Your task to perform on an android device: Set the phone to "Do not disturb". Image 0: 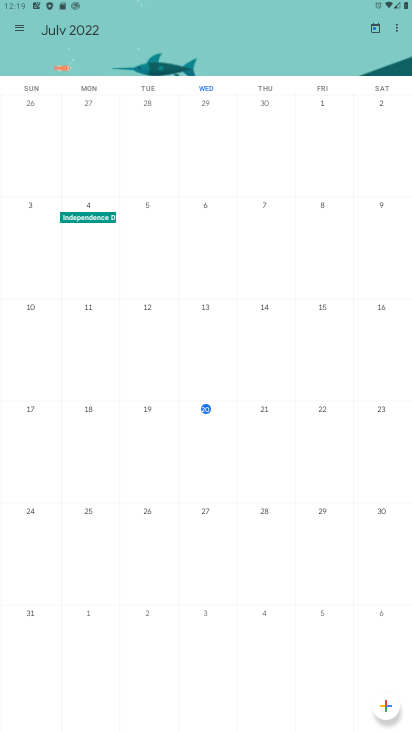
Step 0: press home button
Your task to perform on an android device: Set the phone to "Do not disturb". Image 1: 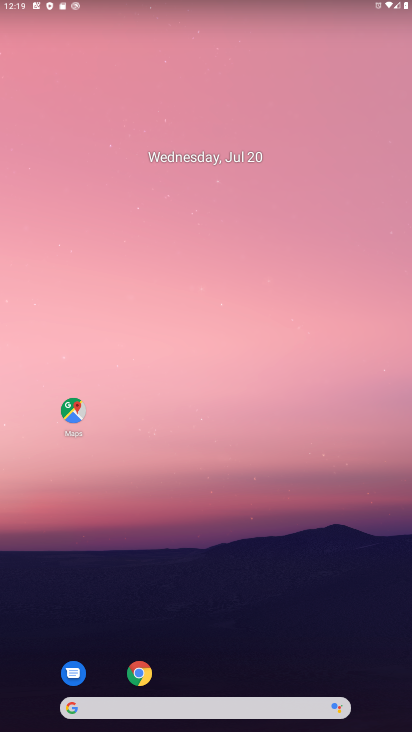
Step 1: drag from (229, 702) to (215, 33)
Your task to perform on an android device: Set the phone to "Do not disturb". Image 2: 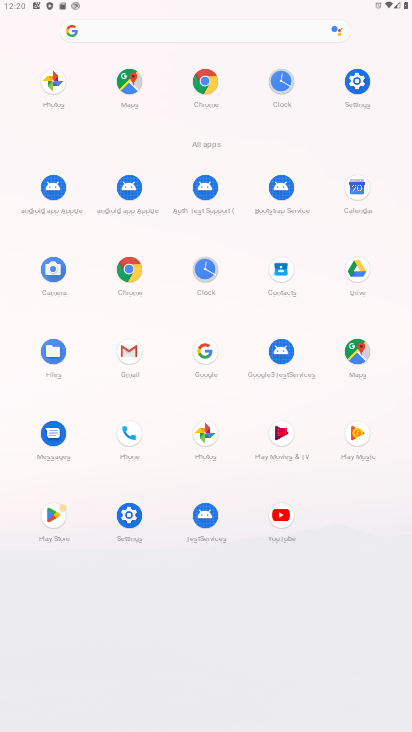
Step 2: click (125, 521)
Your task to perform on an android device: Set the phone to "Do not disturb". Image 3: 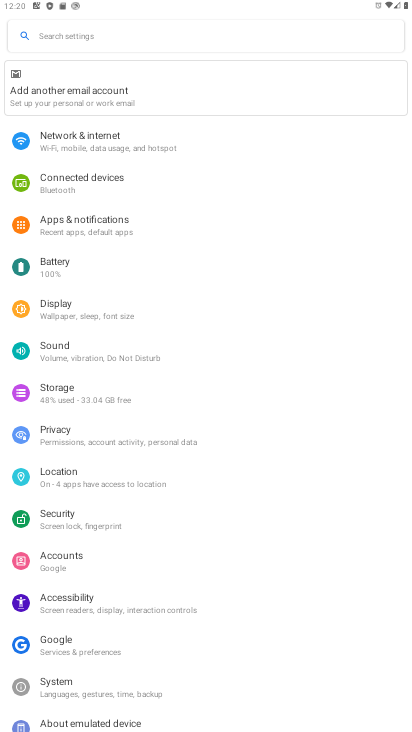
Step 3: click (107, 346)
Your task to perform on an android device: Set the phone to "Do not disturb". Image 4: 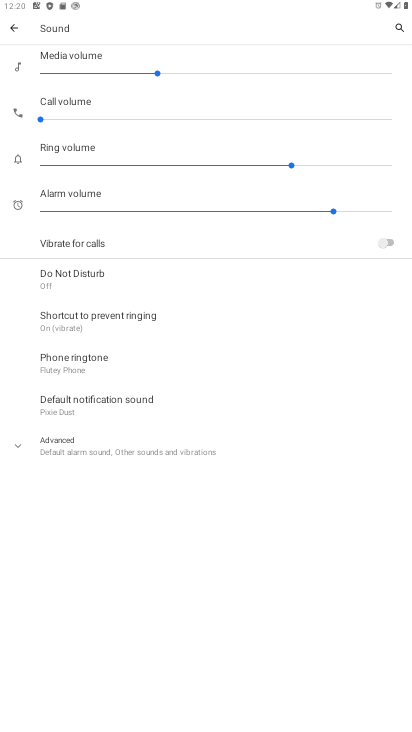
Step 4: click (93, 284)
Your task to perform on an android device: Set the phone to "Do not disturb". Image 5: 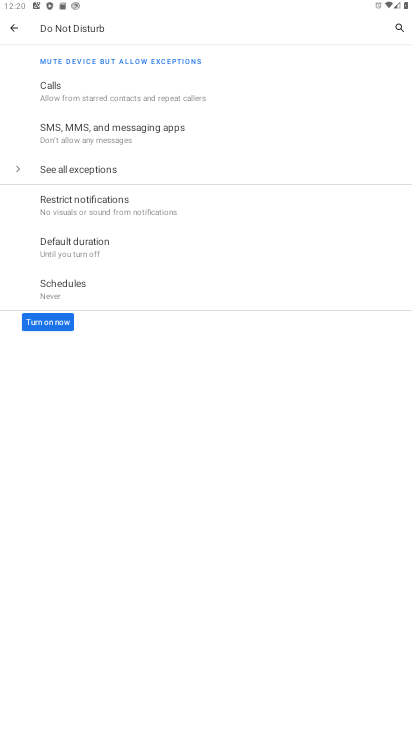
Step 5: click (43, 320)
Your task to perform on an android device: Set the phone to "Do not disturb". Image 6: 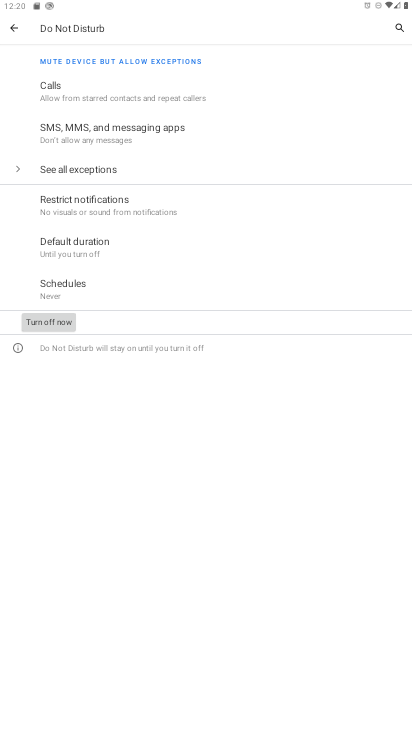
Step 6: task complete